Your task to perform on an android device: open the mobile data screen to see how much data has been used Image 0: 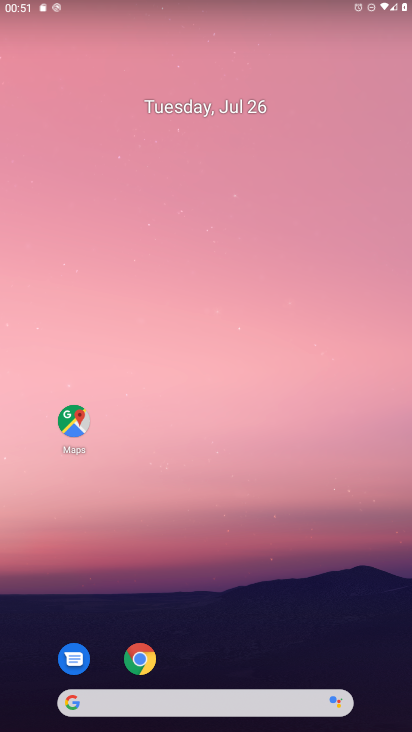
Step 0: drag from (281, 612) to (238, 95)
Your task to perform on an android device: open the mobile data screen to see how much data has been used Image 1: 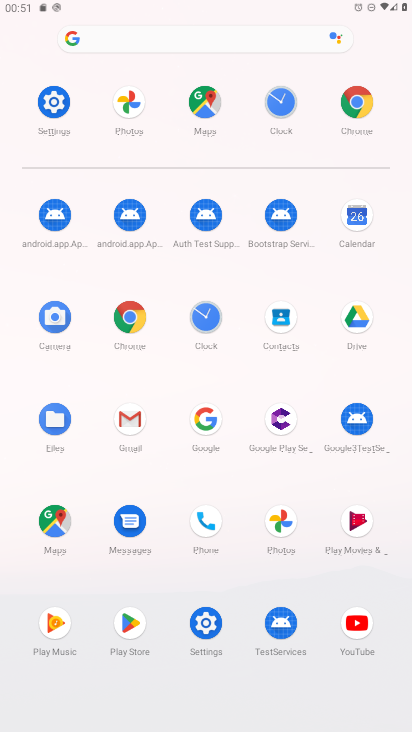
Step 1: drag from (293, 7) to (133, 527)
Your task to perform on an android device: open the mobile data screen to see how much data has been used Image 2: 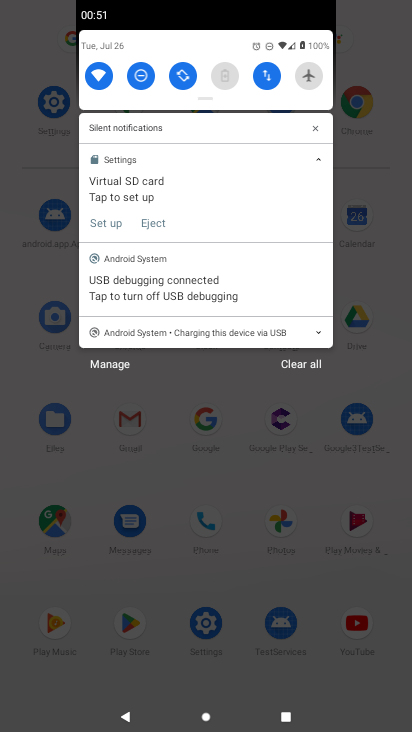
Step 2: click (271, 78)
Your task to perform on an android device: open the mobile data screen to see how much data has been used Image 3: 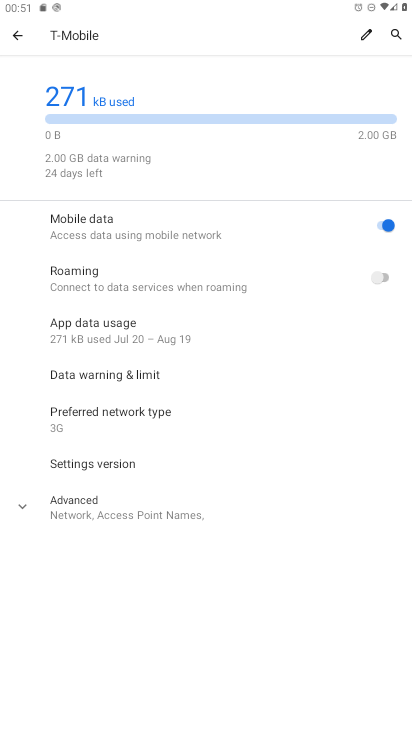
Step 3: task complete